Your task to perform on an android device: turn on wifi Image 0: 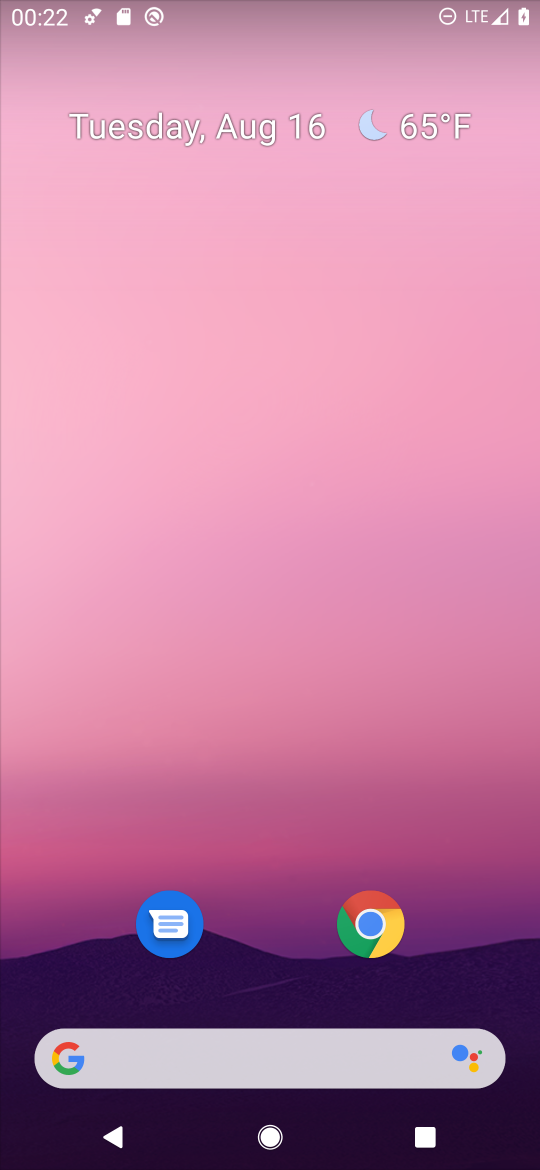
Step 0: drag from (442, 12) to (279, 952)
Your task to perform on an android device: turn on wifi Image 1: 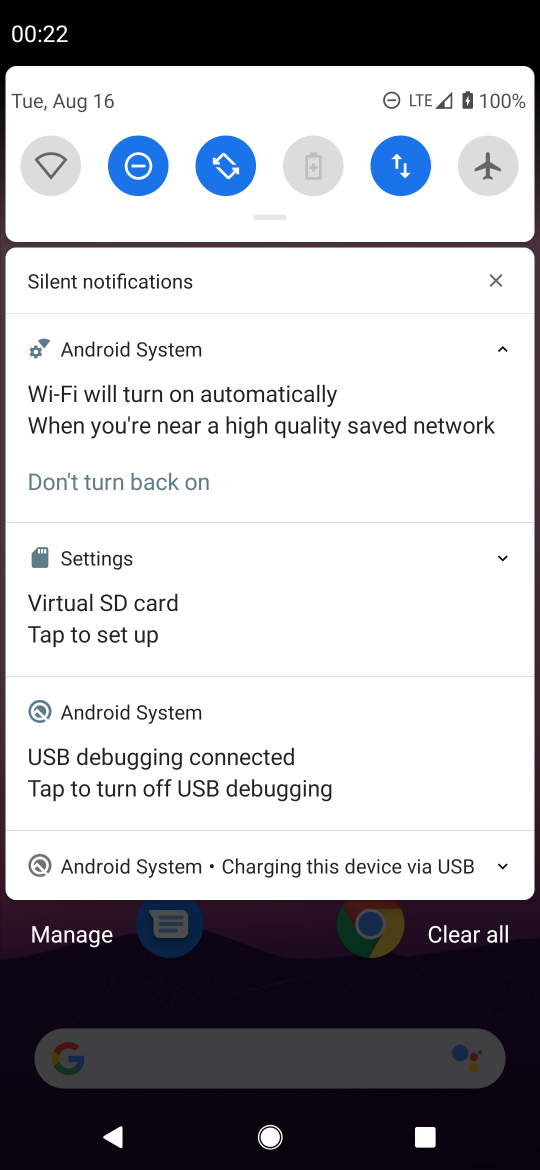
Step 1: click (53, 178)
Your task to perform on an android device: turn on wifi Image 2: 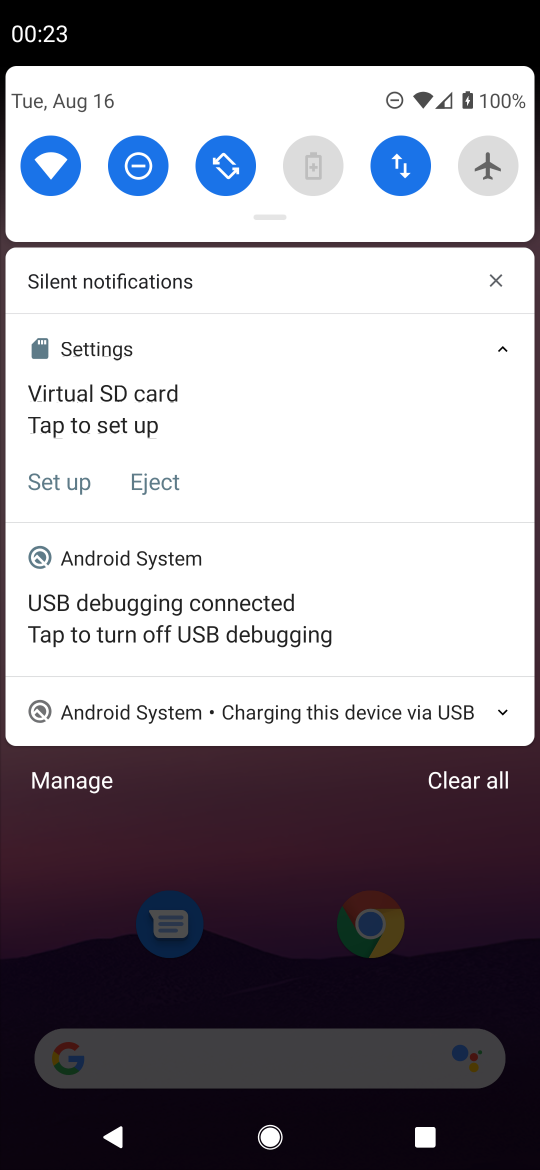
Step 2: task complete